Your task to perform on an android device: open app "Venmo" (install if not already installed), go to login, and select forgot password Image 0: 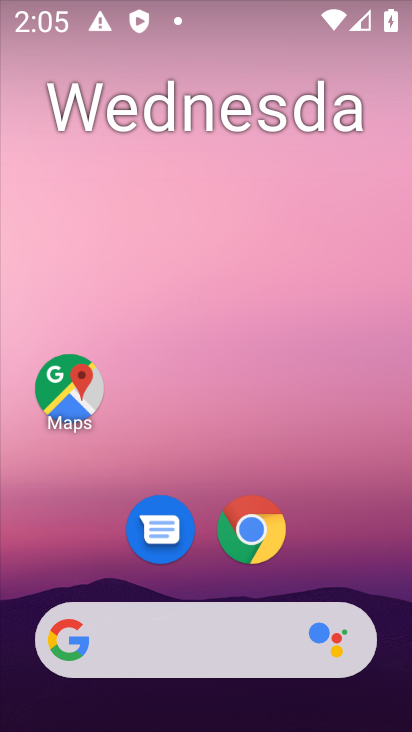
Step 0: drag from (161, 640) to (192, 257)
Your task to perform on an android device: open app "Venmo" (install if not already installed), go to login, and select forgot password Image 1: 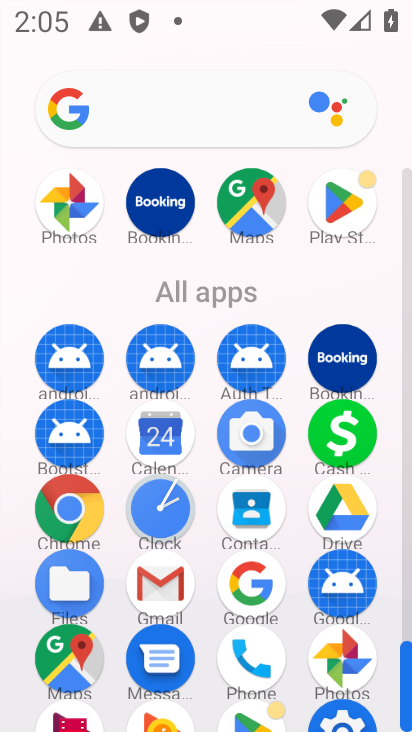
Step 1: click (331, 213)
Your task to perform on an android device: open app "Venmo" (install if not already installed), go to login, and select forgot password Image 2: 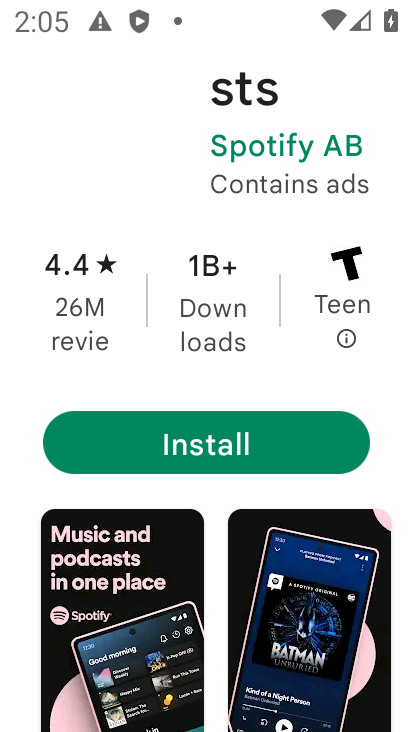
Step 2: drag from (238, 125) to (243, 609)
Your task to perform on an android device: open app "Venmo" (install if not already installed), go to login, and select forgot password Image 3: 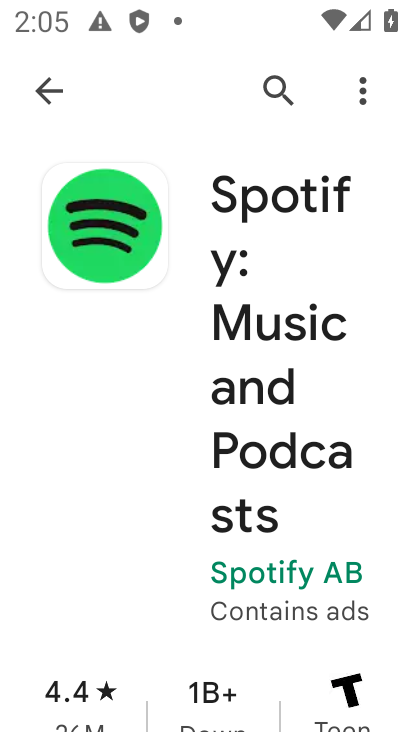
Step 3: click (289, 89)
Your task to perform on an android device: open app "Venmo" (install if not already installed), go to login, and select forgot password Image 4: 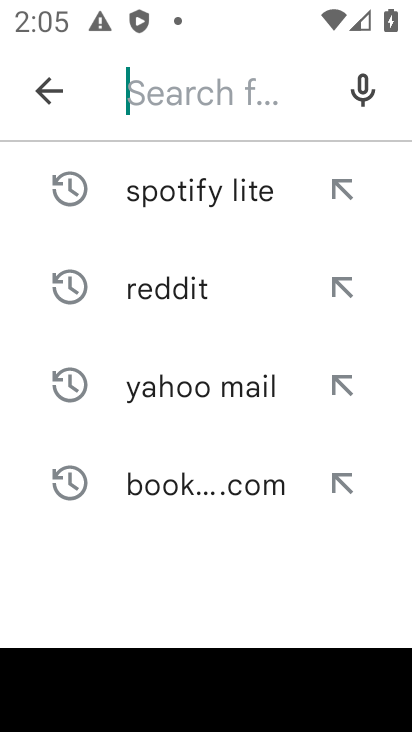
Step 4: type "venmo"
Your task to perform on an android device: open app "Venmo" (install if not already installed), go to login, and select forgot password Image 5: 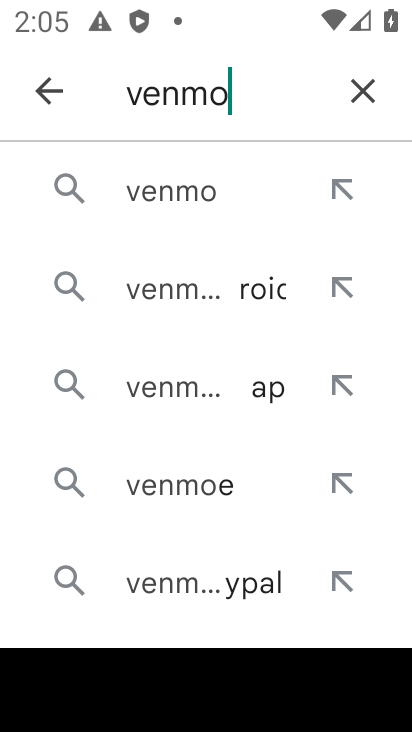
Step 5: click (187, 199)
Your task to perform on an android device: open app "Venmo" (install if not already installed), go to login, and select forgot password Image 6: 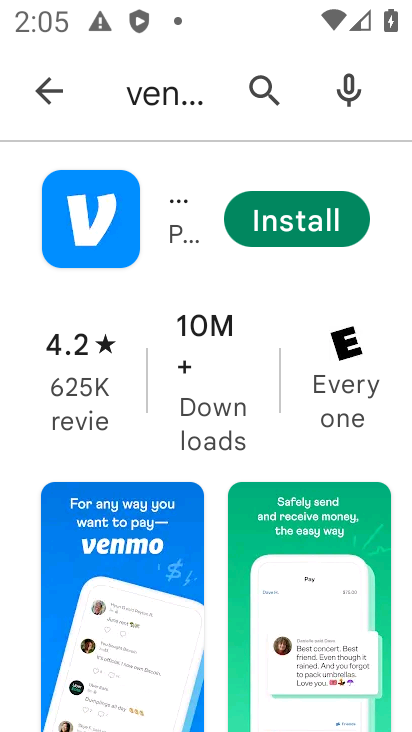
Step 6: click (305, 222)
Your task to perform on an android device: open app "Venmo" (install if not already installed), go to login, and select forgot password Image 7: 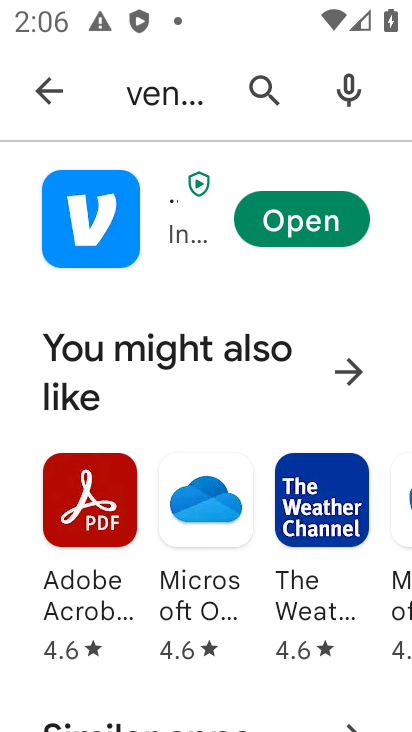
Step 7: click (248, 235)
Your task to perform on an android device: open app "Venmo" (install if not already installed), go to login, and select forgot password Image 8: 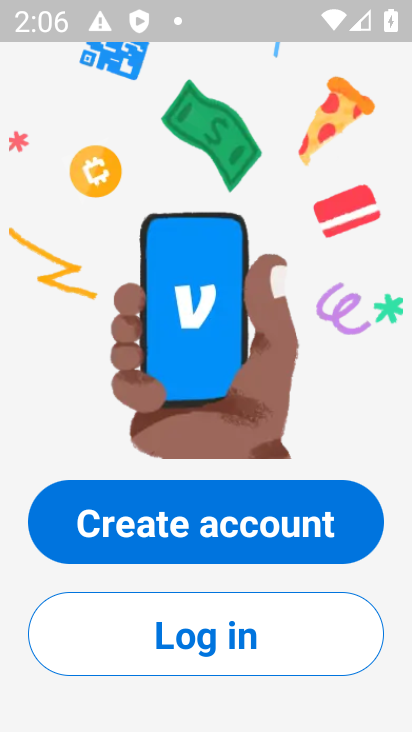
Step 8: click (254, 621)
Your task to perform on an android device: open app "Venmo" (install if not already installed), go to login, and select forgot password Image 9: 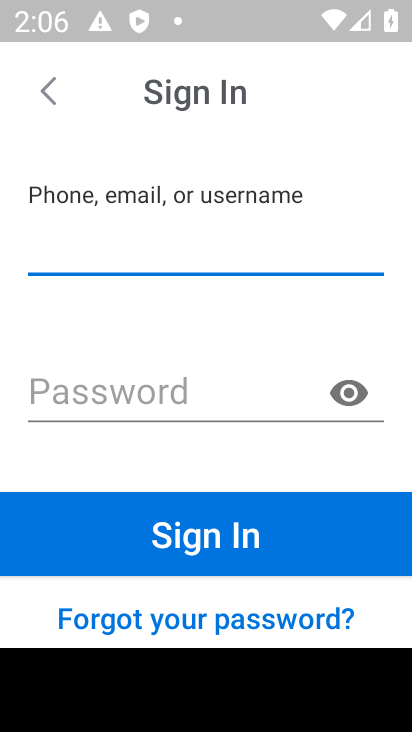
Step 9: click (205, 625)
Your task to perform on an android device: open app "Venmo" (install if not already installed), go to login, and select forgot password Image 10: 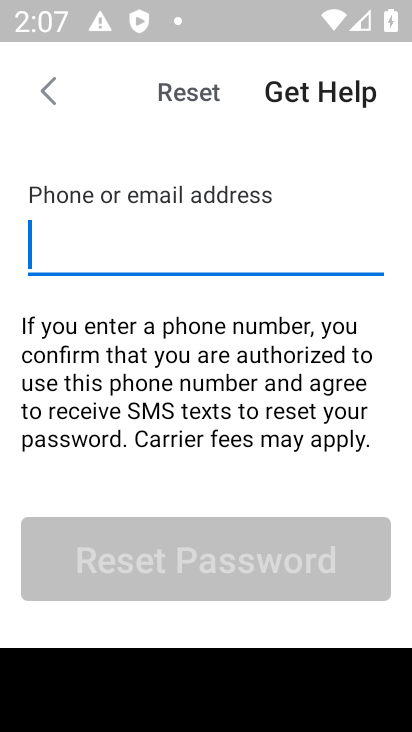
Step 10: task complete